Your task to perform on an android device: turn off data saver in the chrome app Image 0: 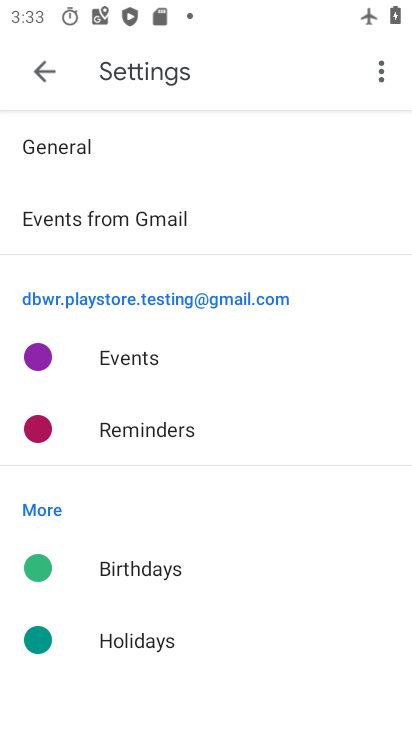
Step 0: press home button
Your task to perform on an android device: turn off data saver in the chrome app Image 1: 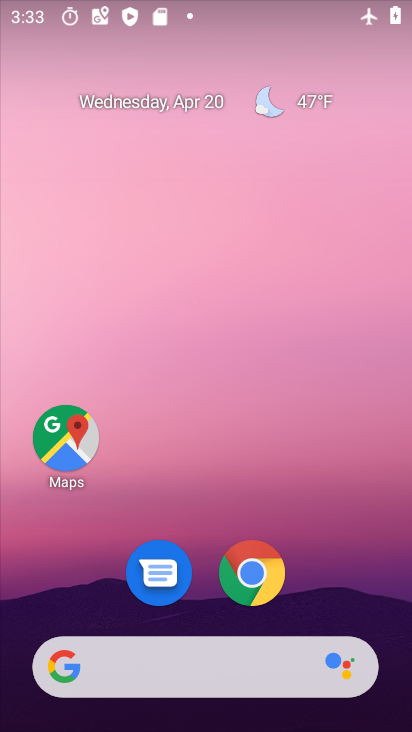
Step 1: click (249, 572)
Your task to perform on an android device: turn off data saver in the chrome app Image 2: 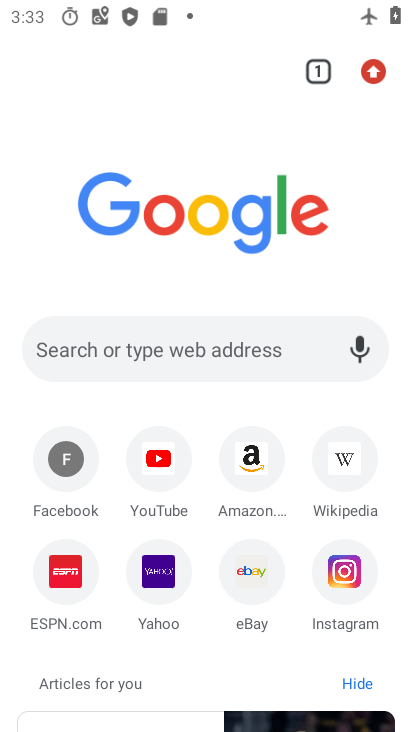
Step 2: click (374, 81)
Your task to perform on an android device: turn off data saver in the chrome app Image 3: 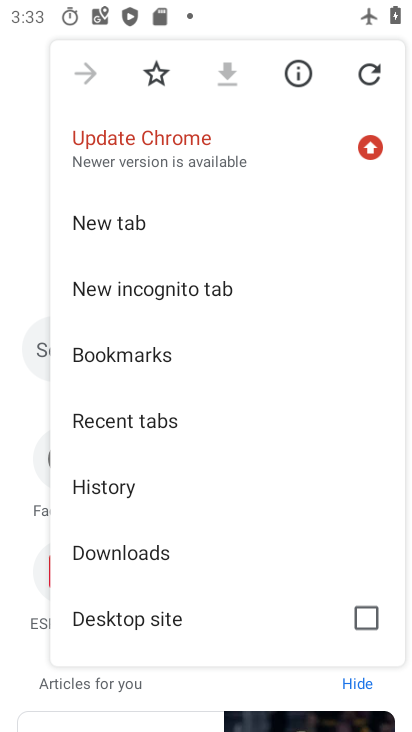
Step 3: drag from (120, 569) to (134, 293)
Your task to perform on an android device: turn off data saver in the chrome app Image 4: 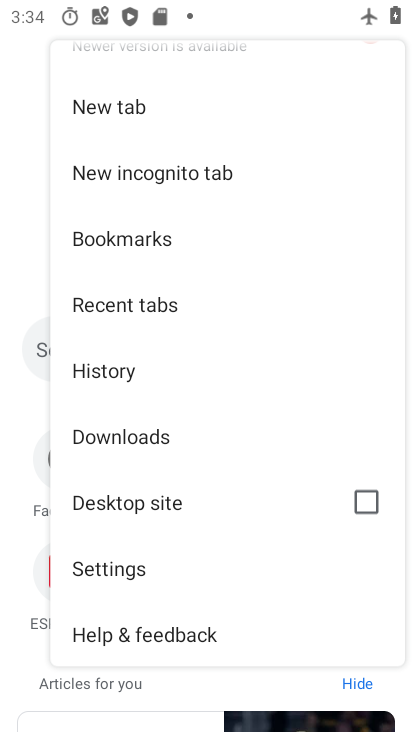
Step 4: click (115, 562)
Your task to perform on an android device: turn off data saver in the chrome app Image 5: 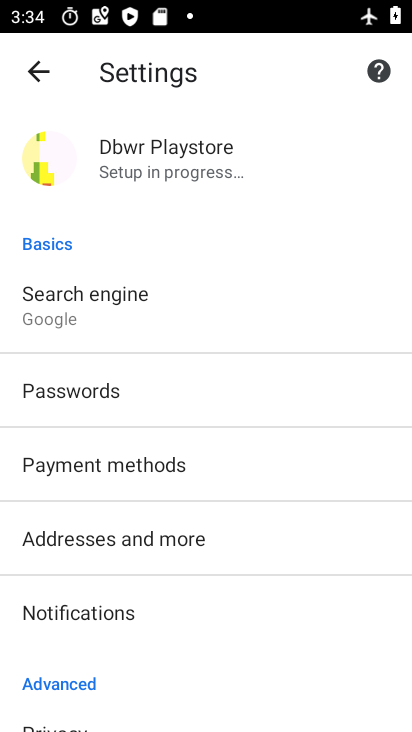
Step 5: drag from (155, 637) to (136, 315)
Your task to perform on an android device: turn off data saver in the chrome app Image 6: 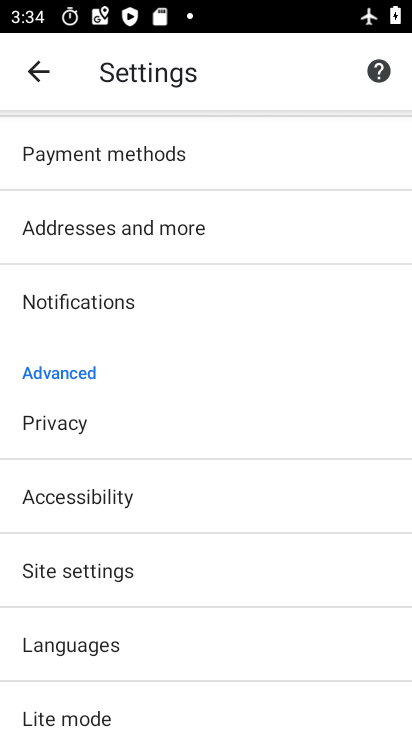
Step 6: click (55, 707)
Your task to perform on an android device: turn off data saver in the chrome app Image 7: 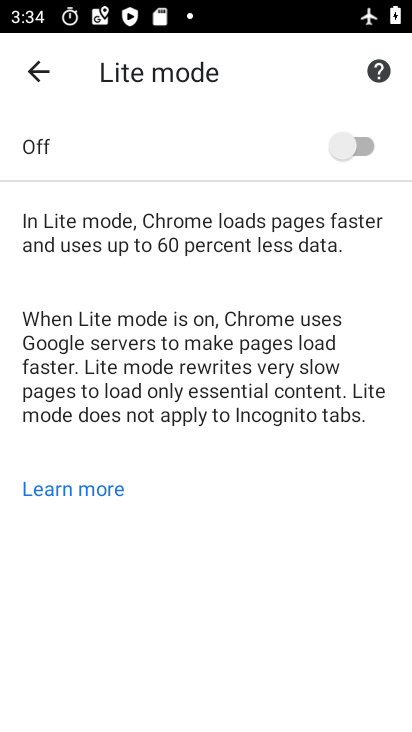
Step 7: task complete